Your task to perform on an android device: change your default location settings in chrome Image 0: 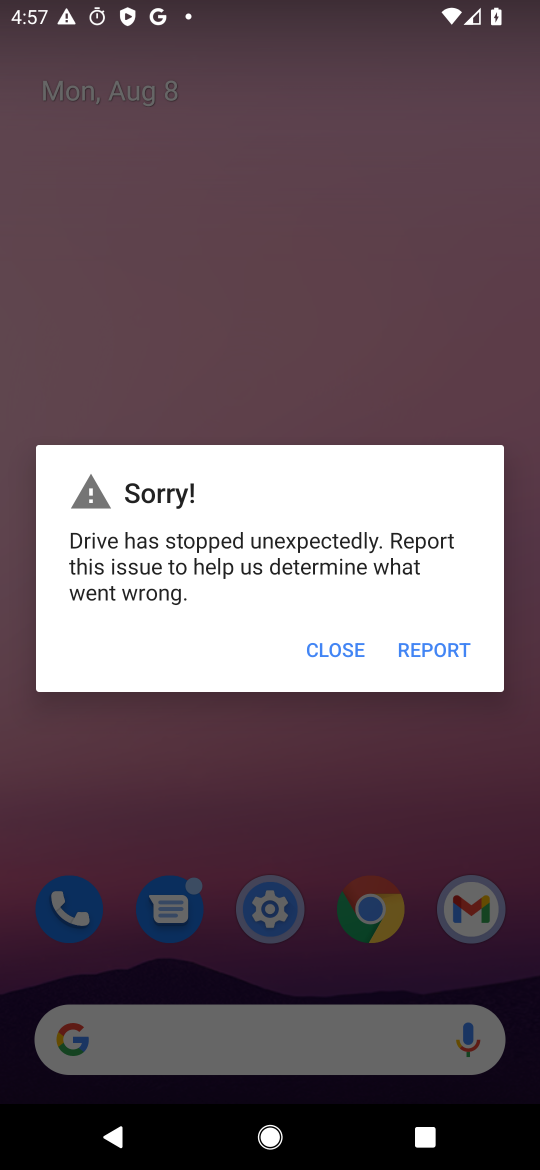
Step 0: press home button
Your task to perform on an android device: change your default location settings in chrome Image 1: 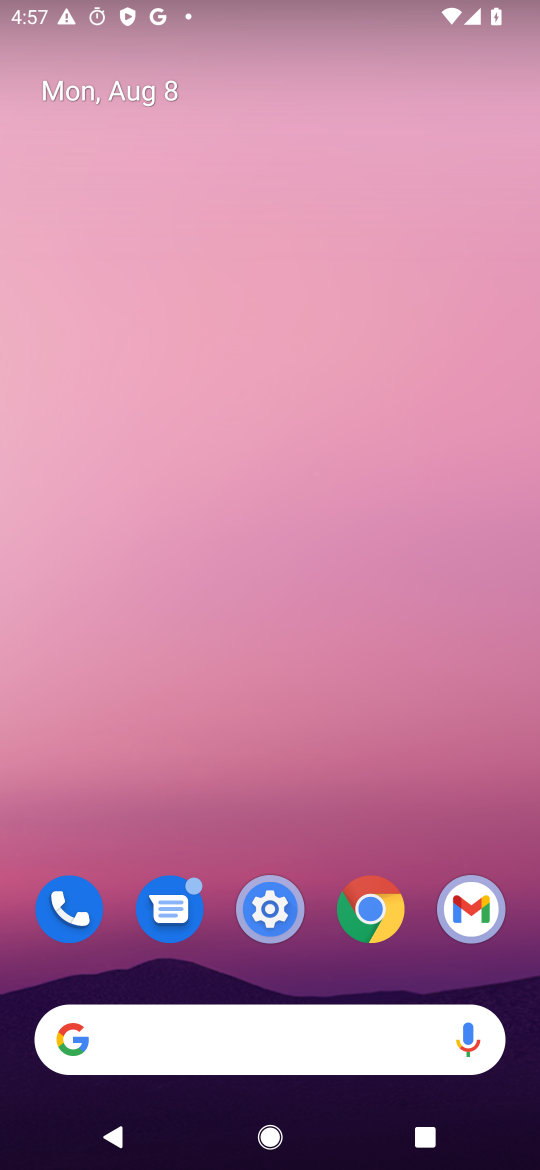
Step 1: click (372, 908)
Your task to perform on an android device: change your default location settings in chrome Image 2: 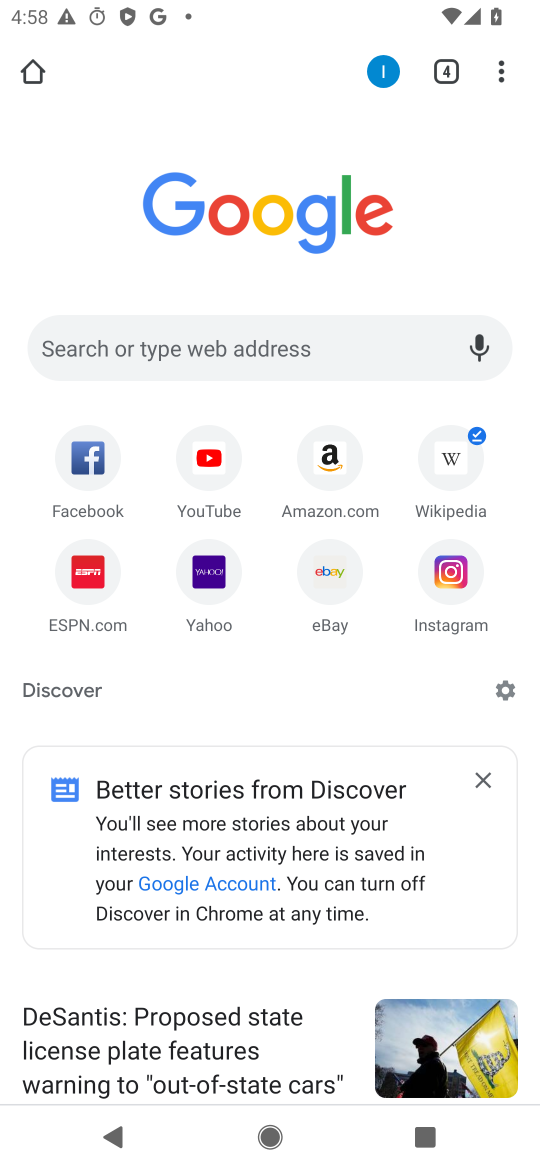
Step 2: drag from (507, 64) to (346, 734)
Your task to perform on an android device: change your default location settings in chrome Image 3: 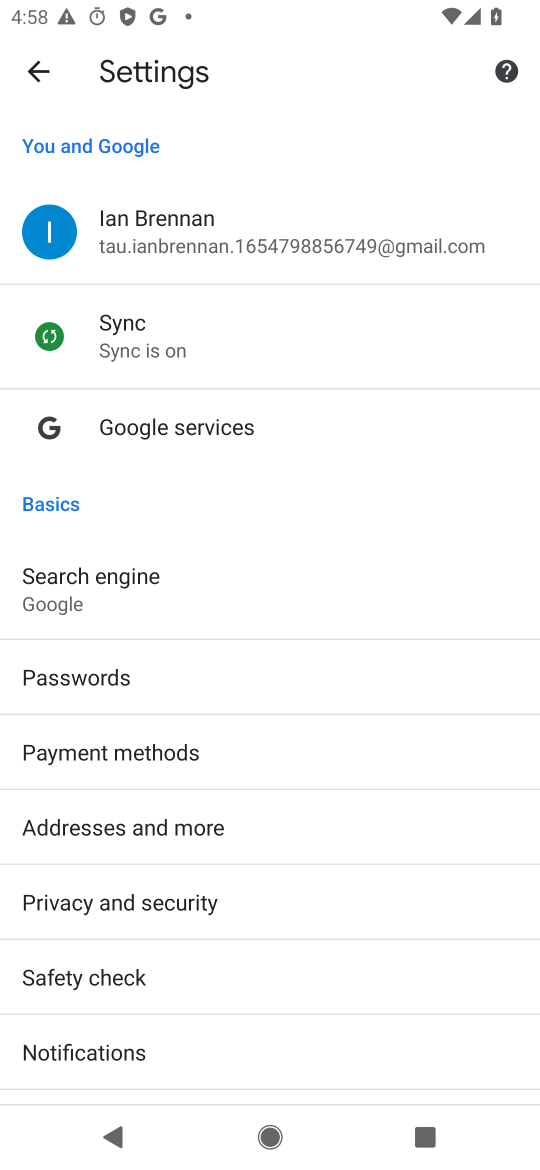
Step 3: drag from (338, 890) to (512, 305)
Your task to perform on an android device: change your default location settings in chrome Image 4: 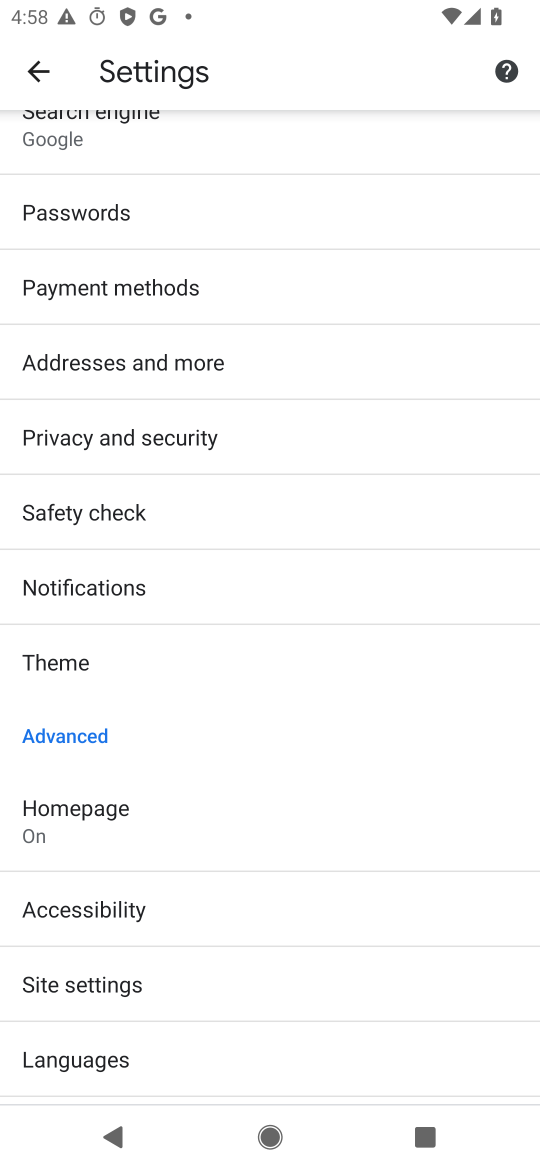
Step 4: drag from (295, 751) to (442, 476)
Your task to perform on an android device: change your default location settings in chrome Image 5: 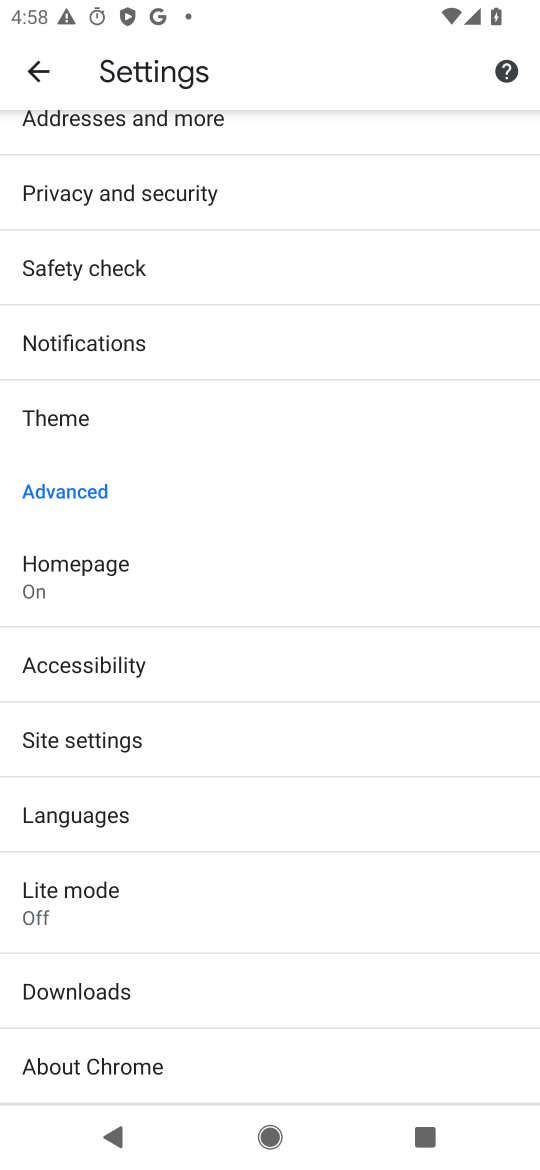
Step 5: click (155, 744)
Your task to perform on an android device: change your default location settings in chrome Image 6: 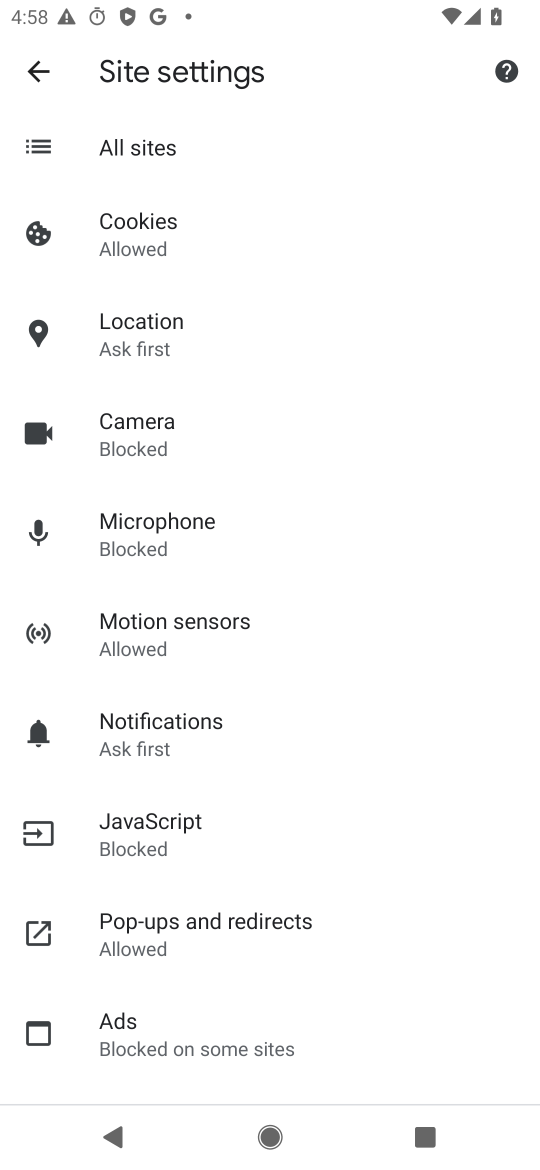
Step 6: click (160, 347)
Your task to perform on an android device: change your default location settings in chrome Image 7: 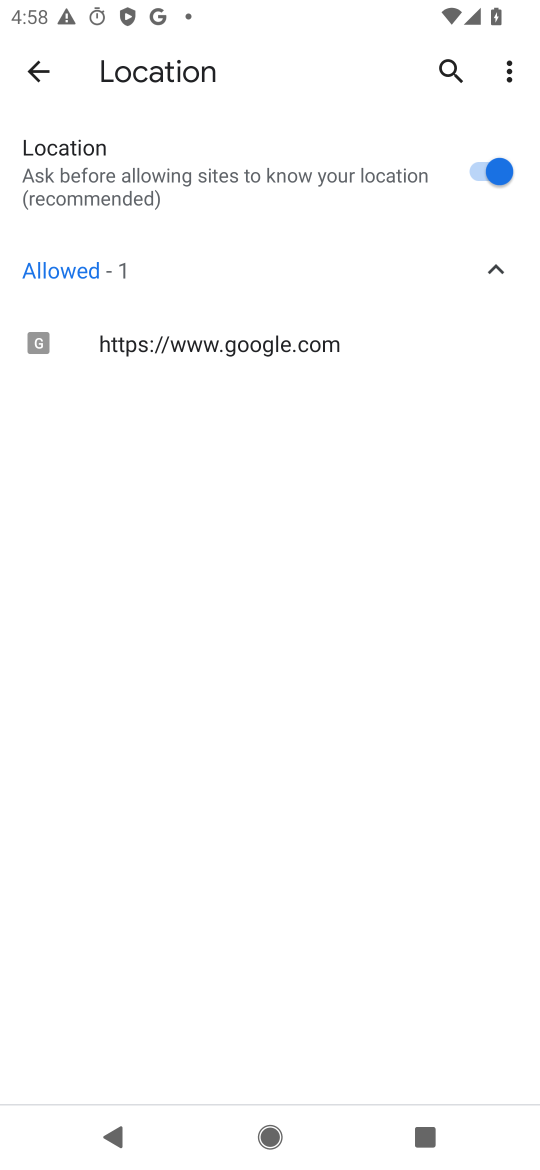
Step 7: click (487, 167)
Your task to perform on an android device: change your default location settings in chrome Image 8: 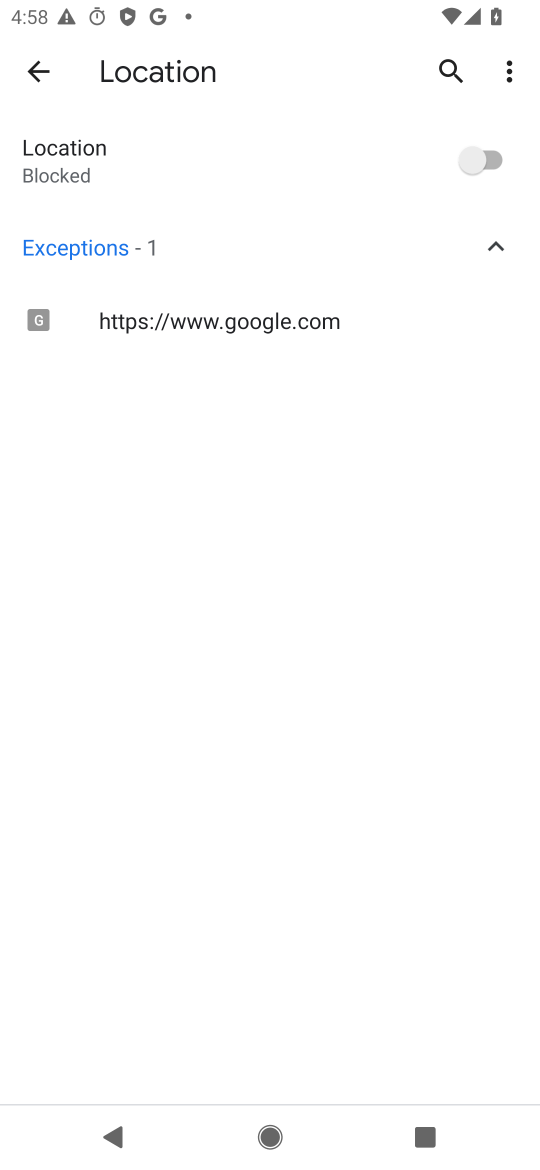
Step 8: task complete